Your task to perform on an android device: turn off airplane mode Image 0: 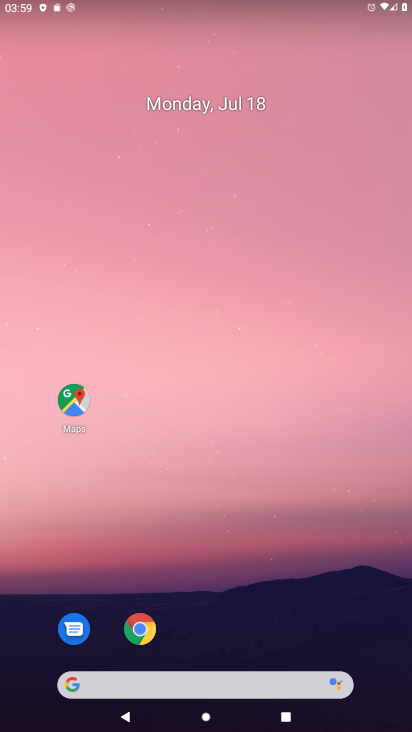
Step 0: drag from (379, 654) to (315, 140)
Your task to perform on an android device: turn off airplane mode Image 1: 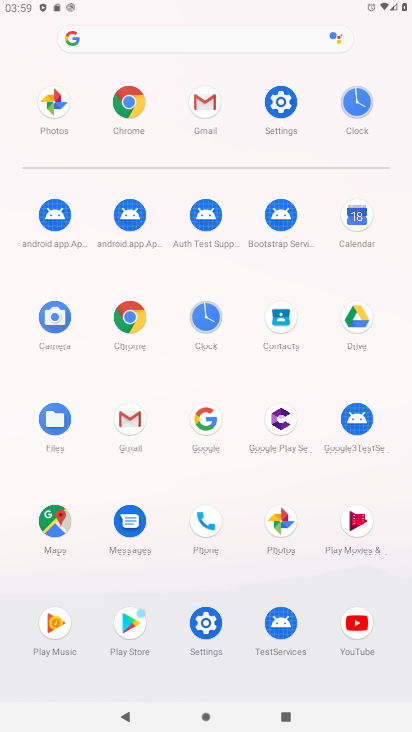
Step 1: click (279, 112)
Your task to perform on an android device: turn off airplane mode Image 2: 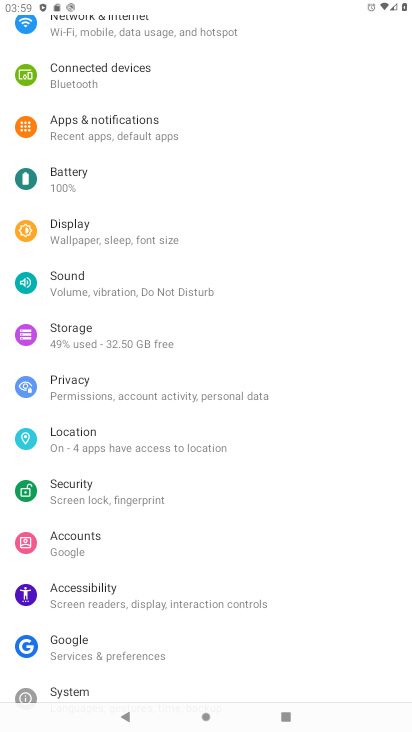
Step 2: click (164, 27)
Your task to perform on an android device: turn off airplane mode Image 3: 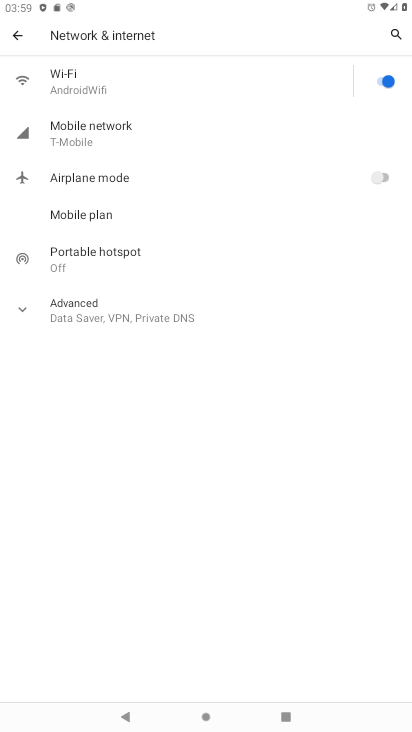
Step 3: task complete